Your task to perform on an android device: toggle pop-ups in chrome Image 0: 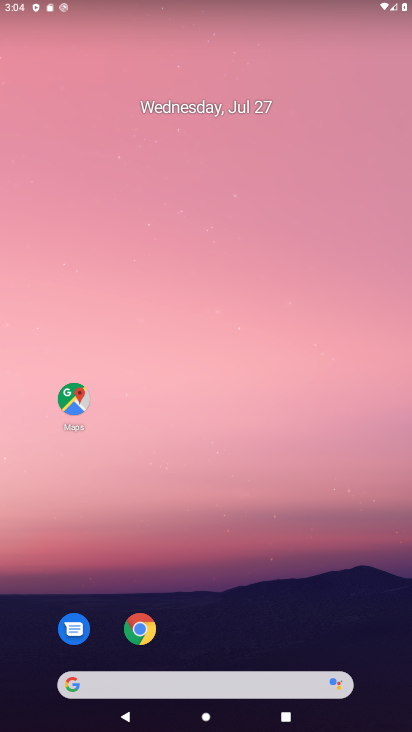
Step 0: press home button
Your task to perform on an android device: toggle pop-ups in chrome Image 1: 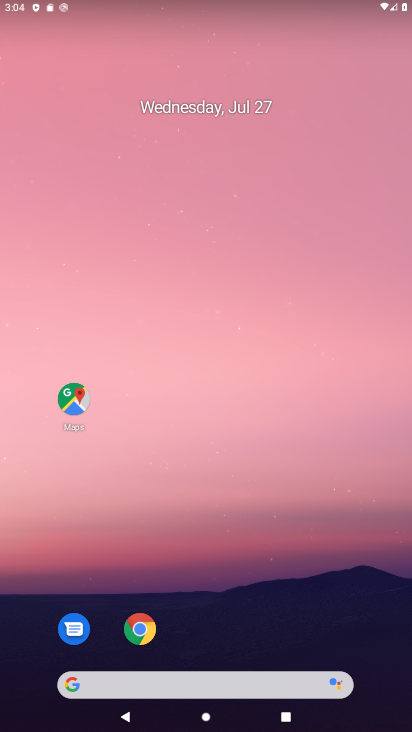
Step 1: click (142, 623)
Your task to perform on an android device: toggle pop-ups in chrome Image 2: 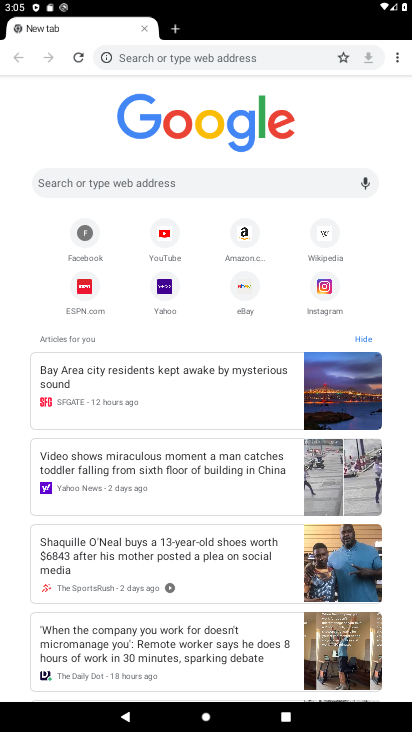
Step 2: click (399, 55)
Your task to perform on an android device: toggle pop-ups in chrome Image 3: 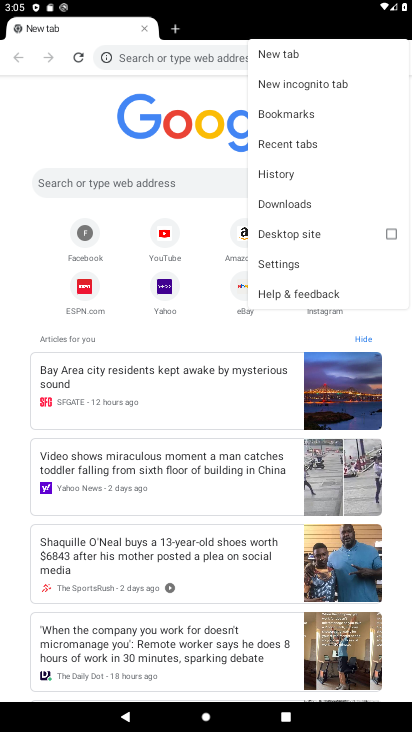
Step 3: click (305, 265)
Your task to perform on an android device: toggle pop-ups in chrome Image 4: 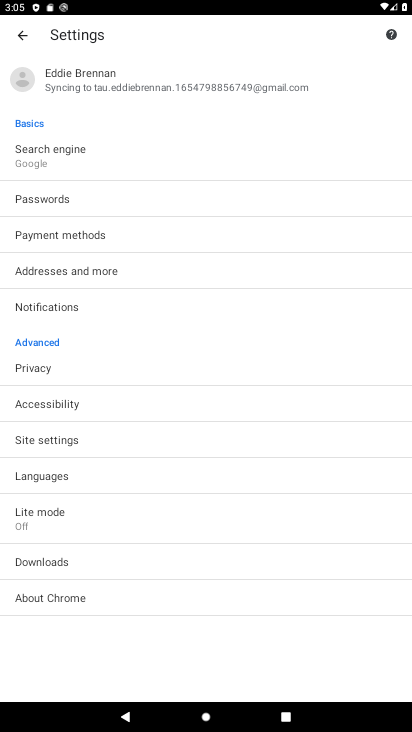
Step 4: click (74, 436)
Your task to perform on an android device: toggle pop-ups in chrome Image 5: 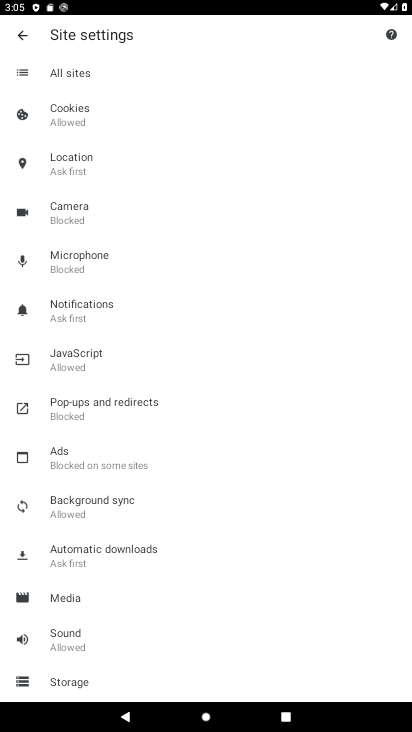
Step 5: click (113, 409)
Your task to perform on an android device: toggle pop-ups in chrome Image 6: 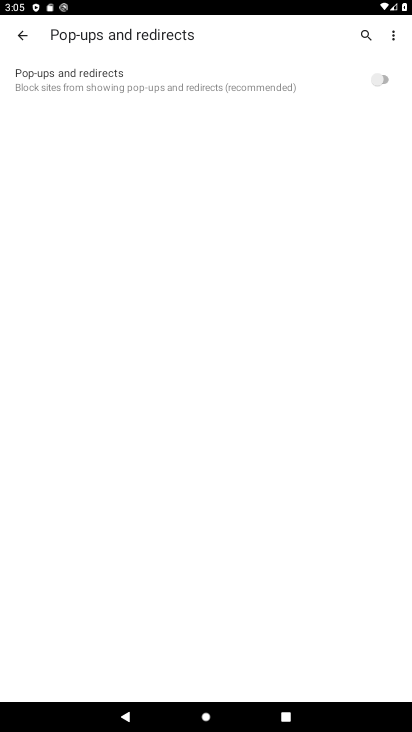
Step 6: click (380, 74)
Your task to perform on an android device: toggle pop-ups in chrome Image 7: 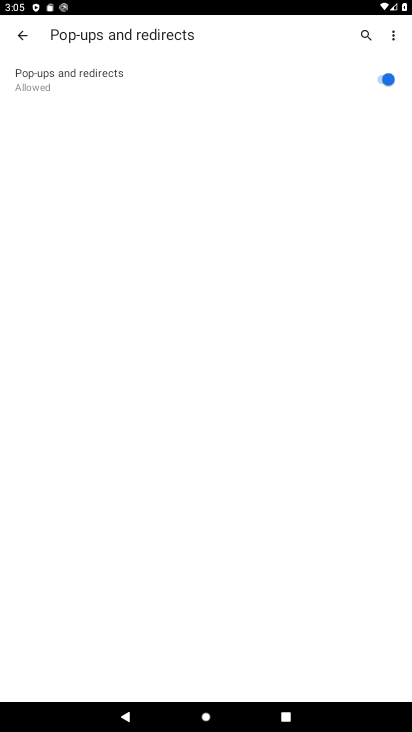
Step 7: task complete